Your task to perform on an android device: Open CNN.com Image 0: 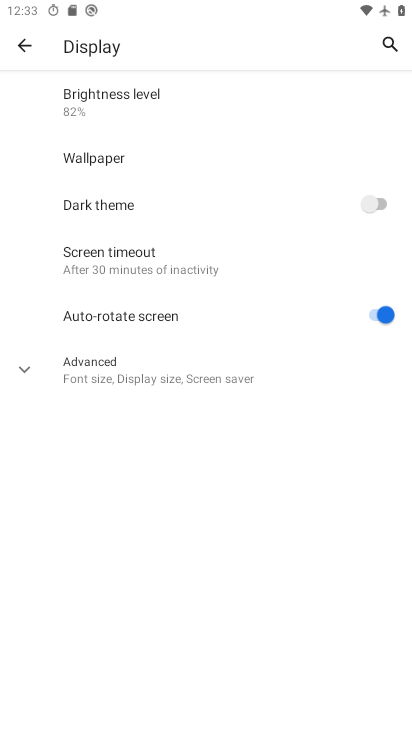
Step 0: press home button
Your task to perform on an android device: Open CNN.com Image 1: 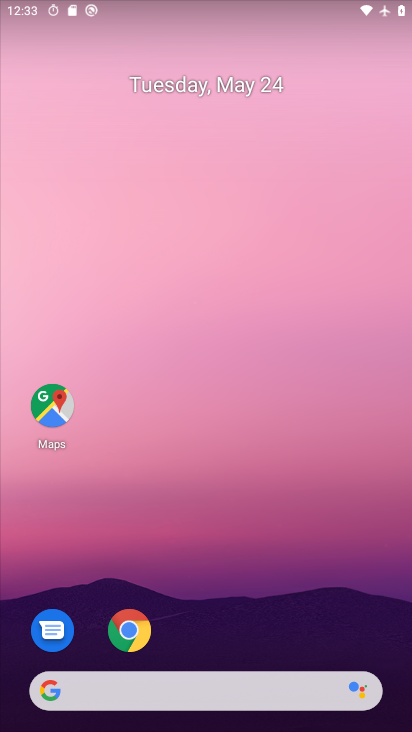
Step 1: click (129, 628)
Your task to perform on an android device: Open CNN.com Image 2: 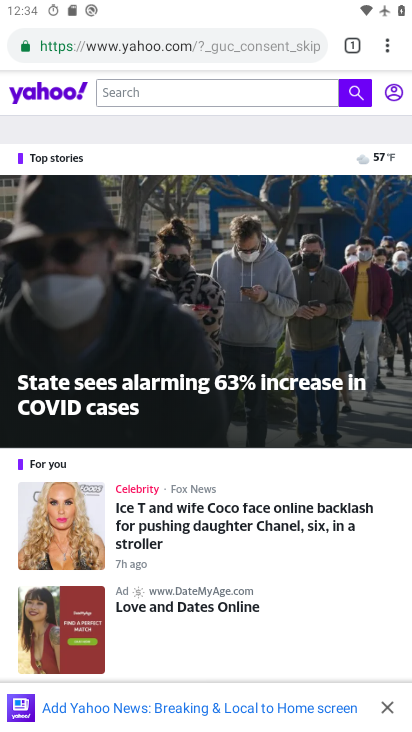
Step 2: click (202, 29)
Your task to perform on an android device: Open CNN.com Image 3: 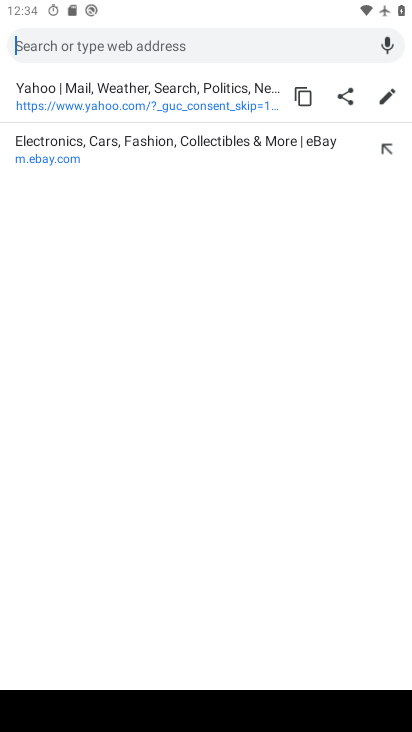
Step 3: type "CNN.com"
Your task to perform on an android device: Open CNN.com Image 4: 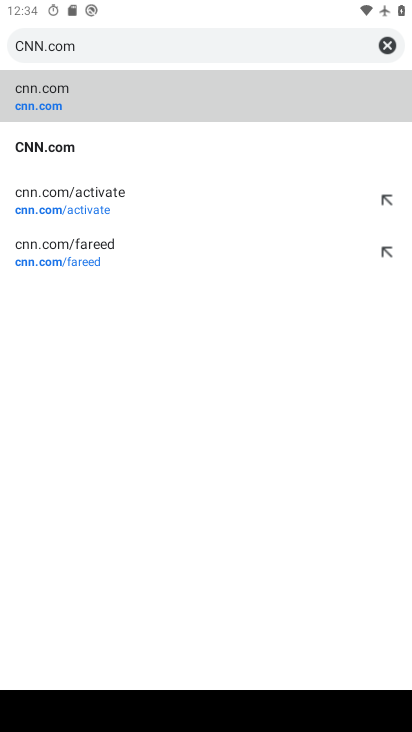
Step 4: click (71, 160)
Your task to perform on an android device: Open CNN.com Image 5: 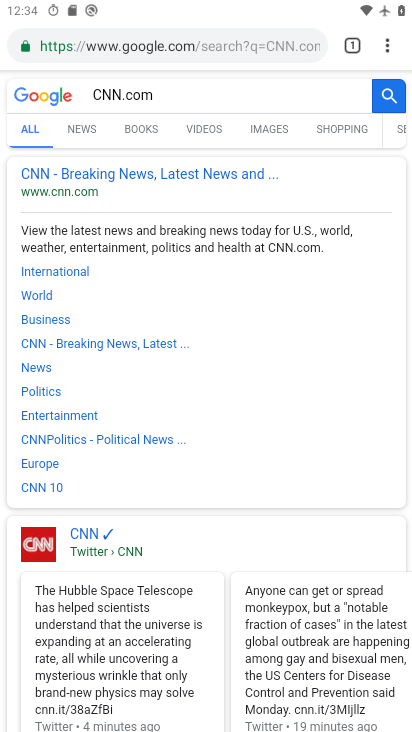
Step 5: task complete